Your task to perform on an android device: turn on showing notifications on the lock screen Image 0: 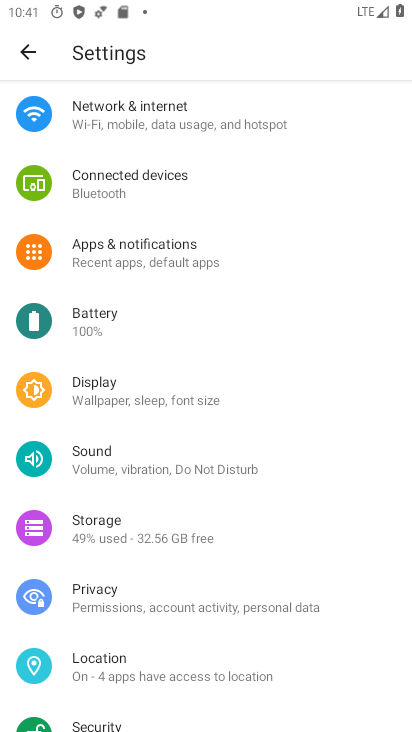
Step 0: click (187, 249)
Your task to perform on an android device: turn on showing notifications on the lock screen Image 1: 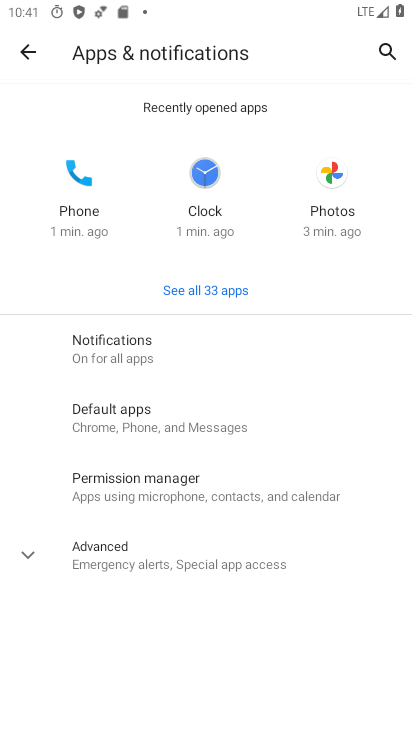
Step 1: click (123, 353)
Your task to perform on an android device: turn on showing notifications on the lock screen Image 2: 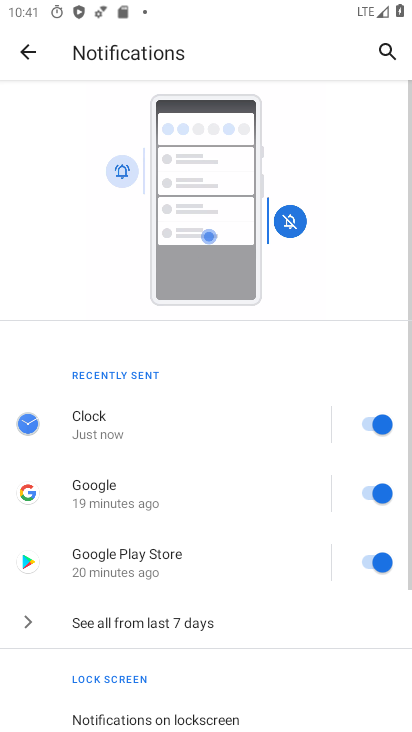
Step 2: drag from (176, 651) to (352, 278)
Your task to perform on an android device: turn on showing notifications on the lock screen Image 3: 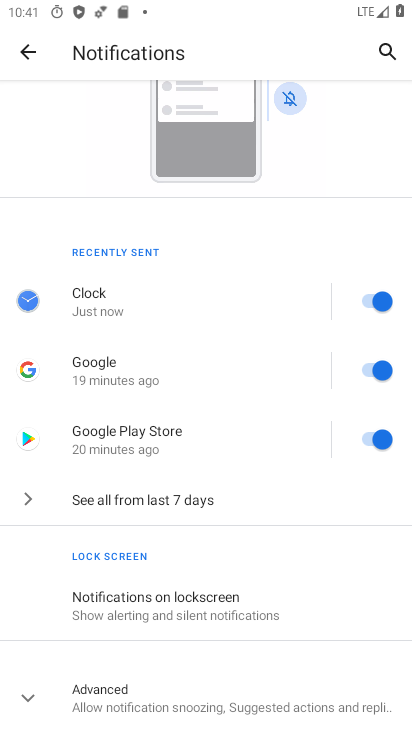
Step 3: click (196, 604)
Your task to perform on an android device: turn on showing notifications on the lock screen Image 4: 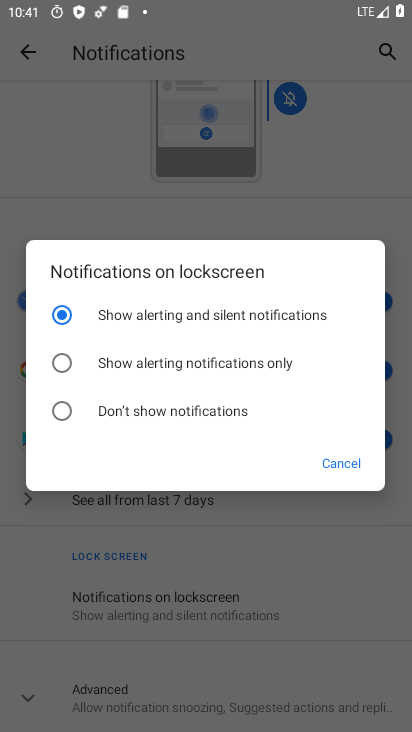
Step 4: task complete